Your task to perform on an android device: Open Google Chrome and click the shortcut for Amazon.com Image 0: 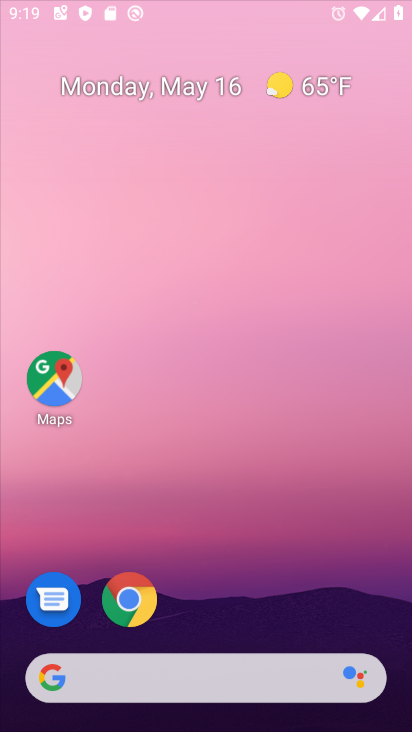
Step 0: drag from (226, 572) to (319, 38)
Your task to perform on an android device: Open Google Chrome and click the shortcut for Amazon.com Image 1: 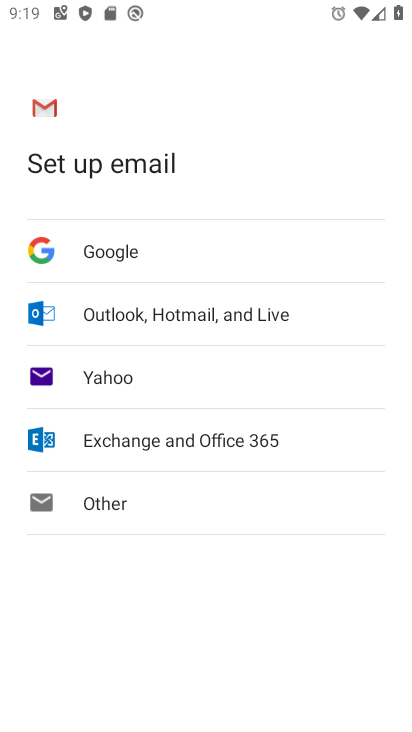
Step 1: press home button
Your task to perform on an android device: Open Google Chrome and click the shortcut for Amazon.com Image 2: 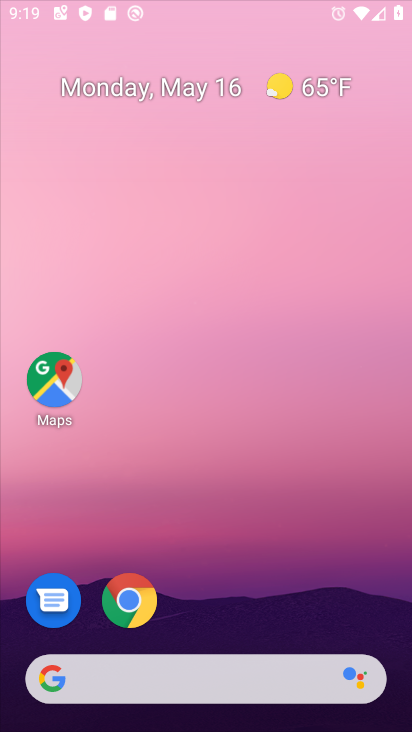
Step 2: drag from (155, 602) to (324, 14)
Your task to perform on an android device: Open Google Chrome and click the shortcut for Amazon.com Image 3: 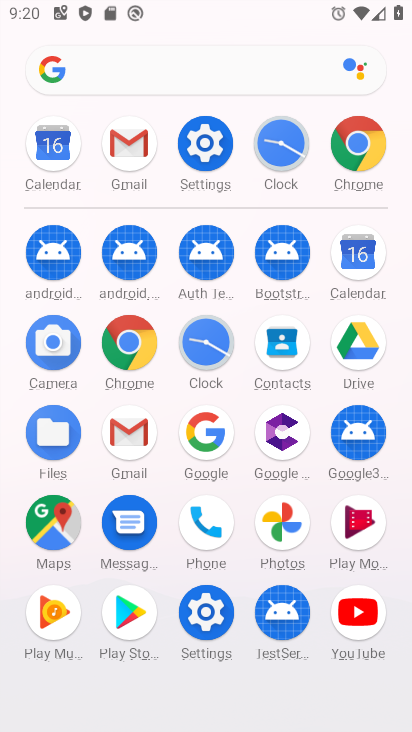
Step 3: click (133, 364)
Your task to perform on an android device: Open Google Chrome and click the shortcut for Amazon.com Image 4: 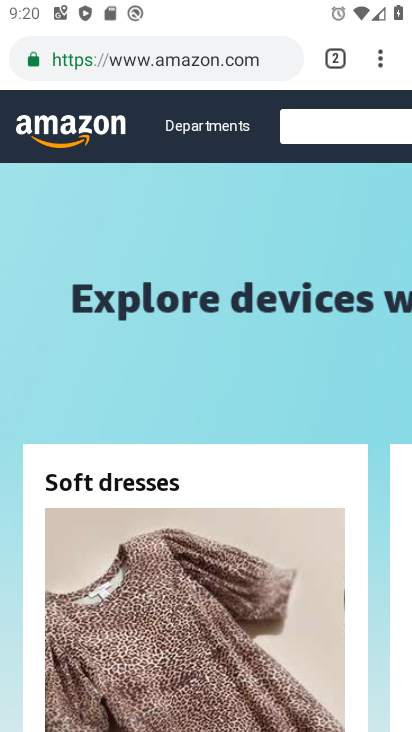
Step 4: click (388, 43)
Your task to perform on an android device: Open Google Chrome and click the shortcut for Amazon.com Image 5: 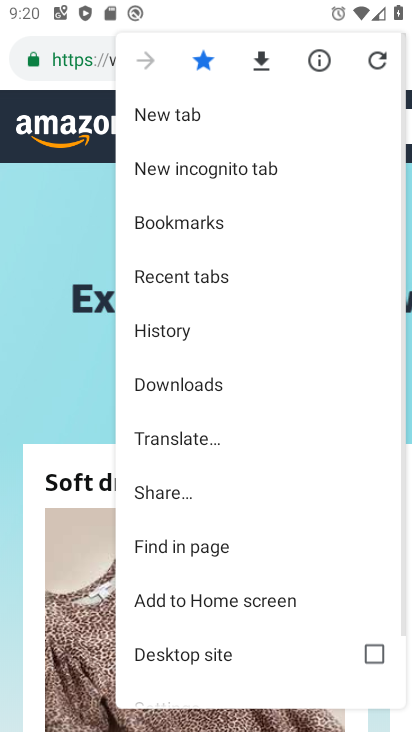
Step 5: drag from (256, 558) to (352, 149)
Your task to perform on an android device: Open Google Chrome and click the shortcut for Amazon.com Image 6: 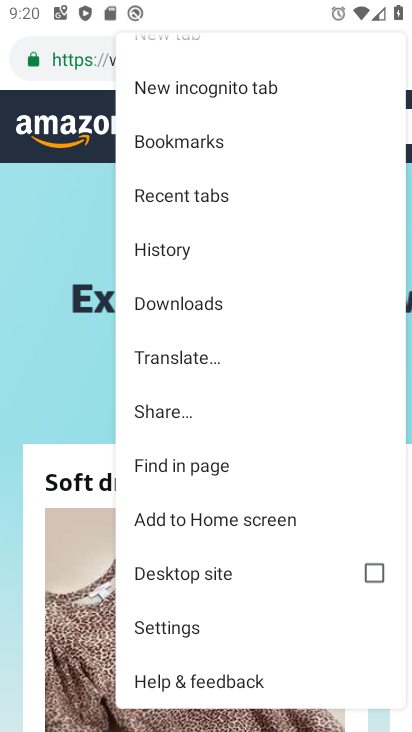
Step 6: click (36, 179)
Your task to perform on an android device: Open Google Chrome and click the shortcut for Amazon.com Image 7: 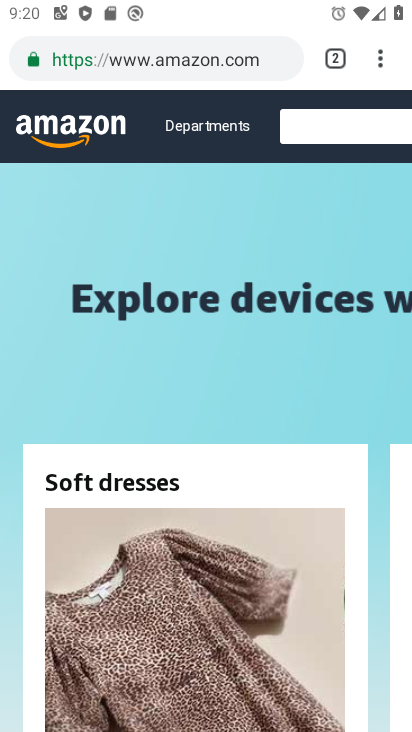
Step 7: click (335, 52)
Your task to perform on an android device: Open Google Chrome and click the shortcut for Amazon.com Image 8: 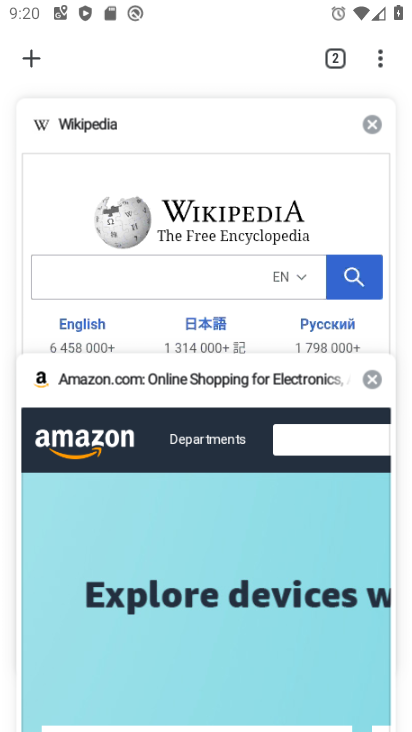
Step 8: click (21, 54)
Your task to perform on an android device: Open Google Chrome and click the shortcut for Amazon.com Image 9: 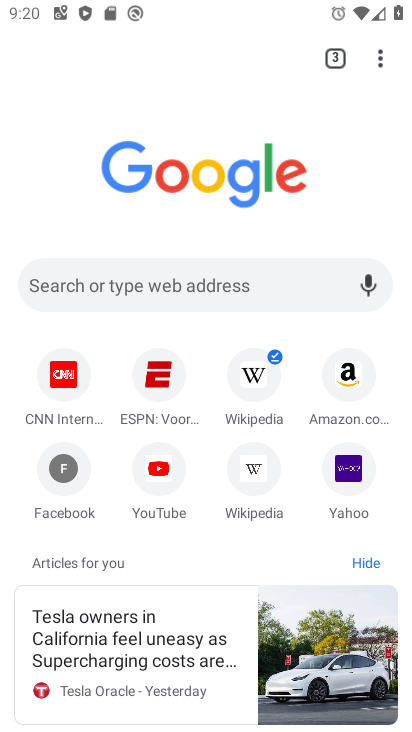
Step 9: click (365, 376)
Your task to perform on an android device: Open Google Chrome and click the shortcut for Amazon.com Image 10: 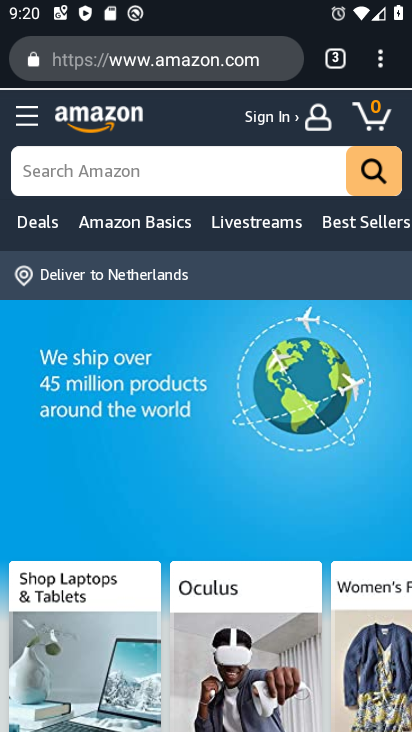
Step 10: task complete